Your task to perform on an android device: turn off wifi Image 0: 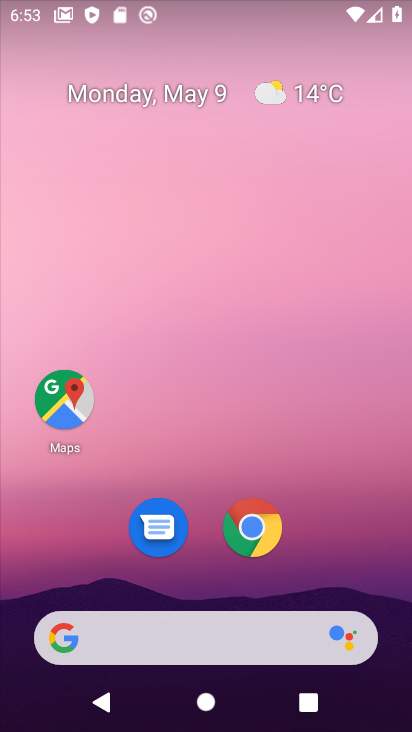
Step 0: drag from (336, 559) to (261, 7)
Your task to perform on an android device: turn off wifi Image 1: 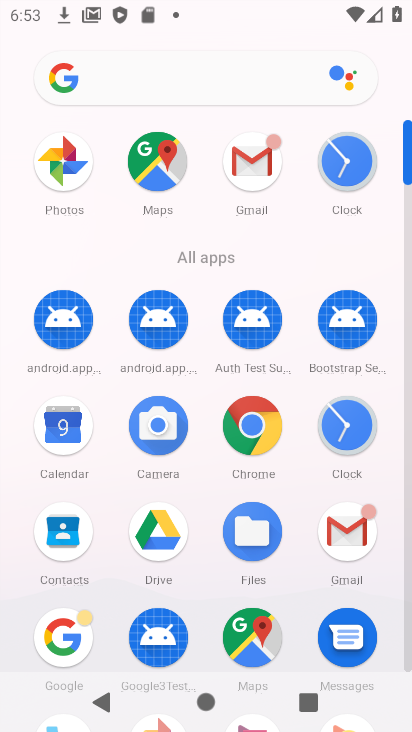
Step 1: drag from (287, 505) to (300, 222)
Your task to perform on an android device: turn off wifi Image 2: 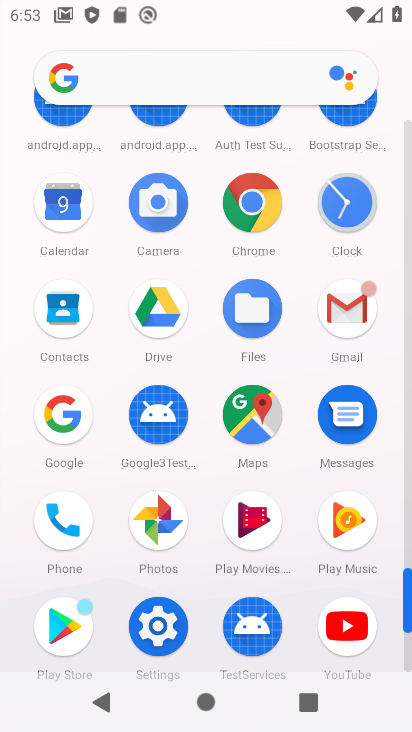
Step 2: click (156, 625)
Your task to perform on an android device: turn off wifi Image 3: 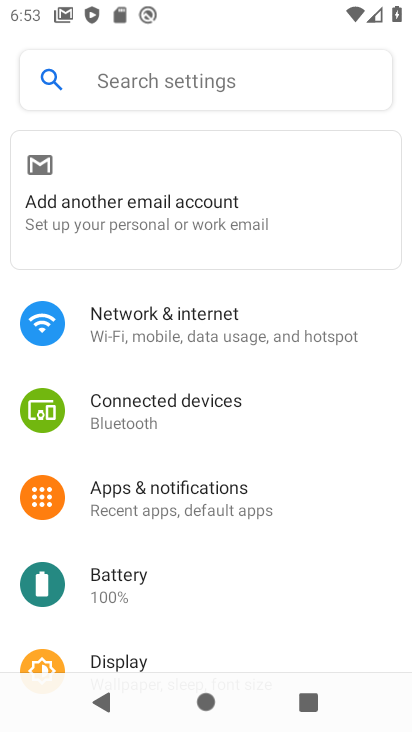
Step 3: click (184, 323)
Your task to perform on an android device: turn off wifi Image 4: 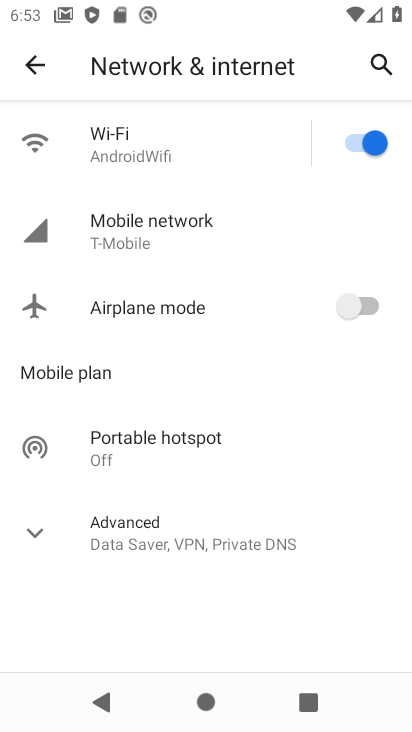
Step 4: click (370, 139)
Your task to perform on an android device: turn off wifi Image 5: 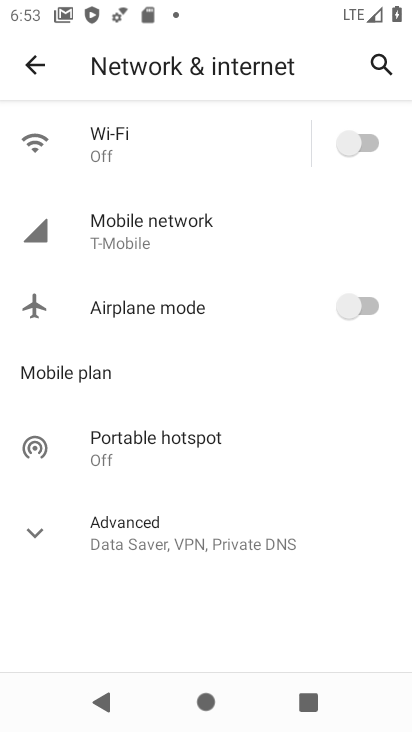
Step 5: task complete